Your task to perform on an android device: What's the weather? Image 0: 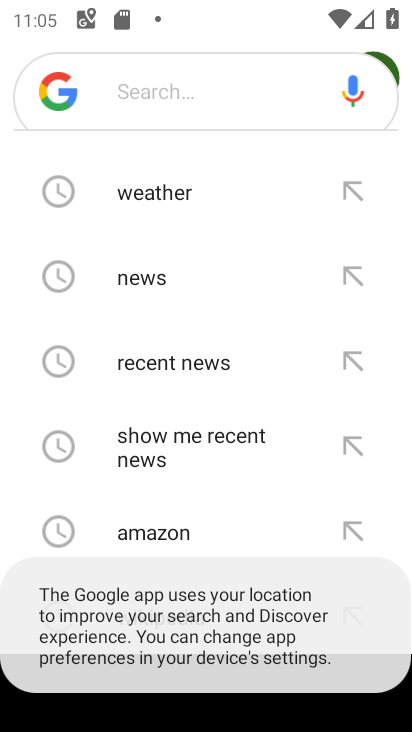
Step 0: press back button
Your task to perform on an android device: What's the weather? Image 1: 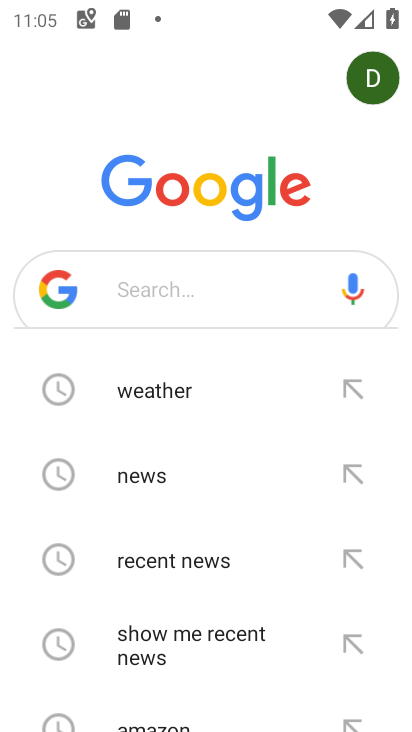
Step 1: press back button
Your task to perform on an android device: What's the weather? Image 2: 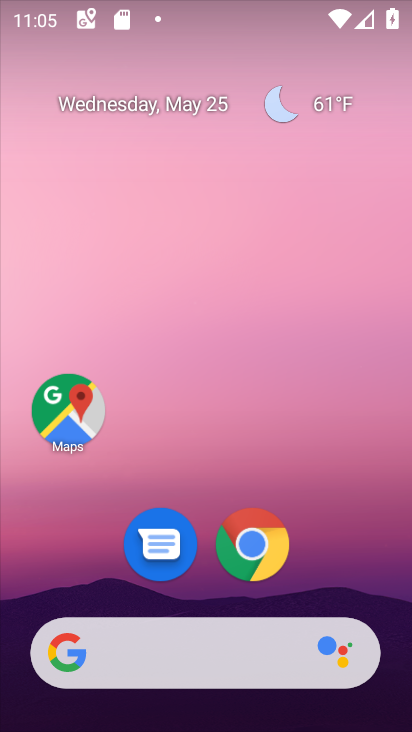
Step 2: click (278, 540)
Your task to perform on an android device: What's the weather? Image 3: 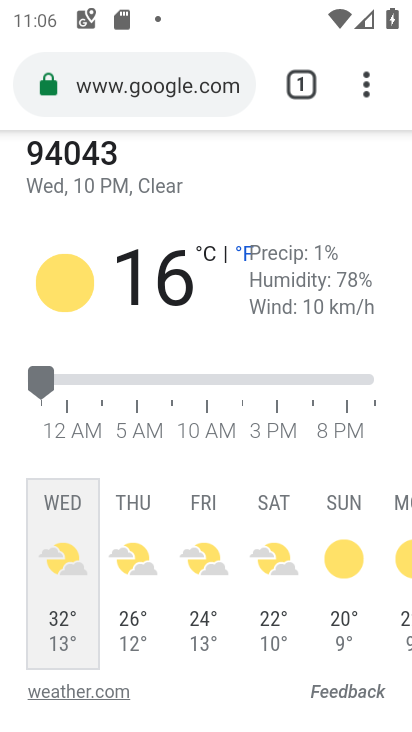
Step 3: task complete